Your task to perform on an android device: What is the recent news? Image 0: 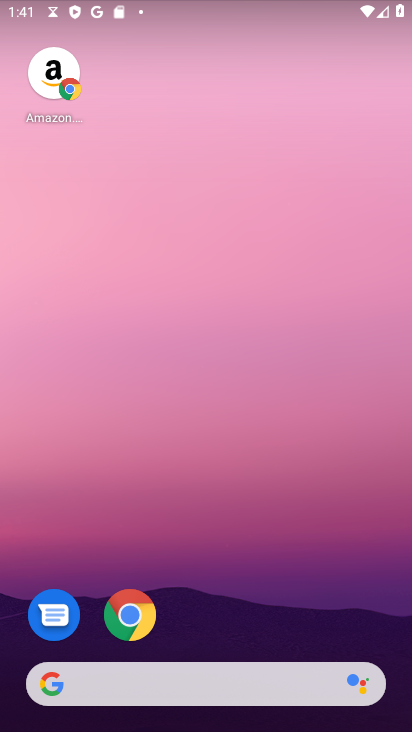
Step 0: drag from (351, 580) to (282, 119)
Your task to perform on an android device: What is the recent news? Image 1: 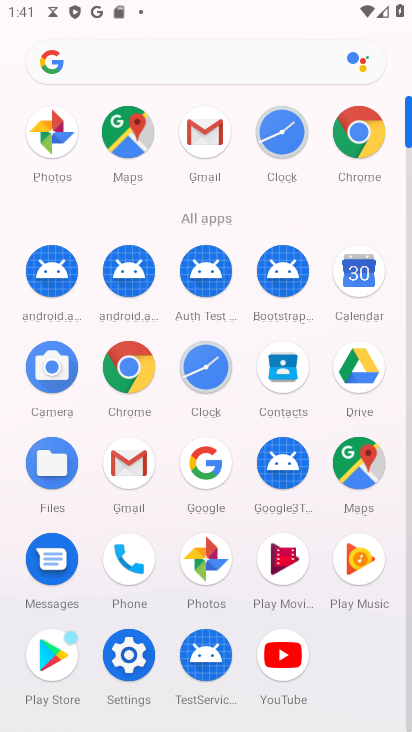
Step 1: click (354, 139)
Your task to perform on an android device: What is the recent news? Image 2: 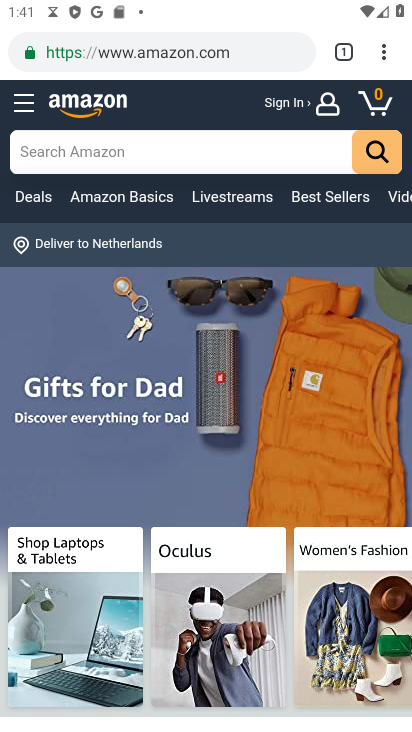
Step 2: task complete